Your task to perform on an android device: Search for Italian restaurants on Maps Image 0: 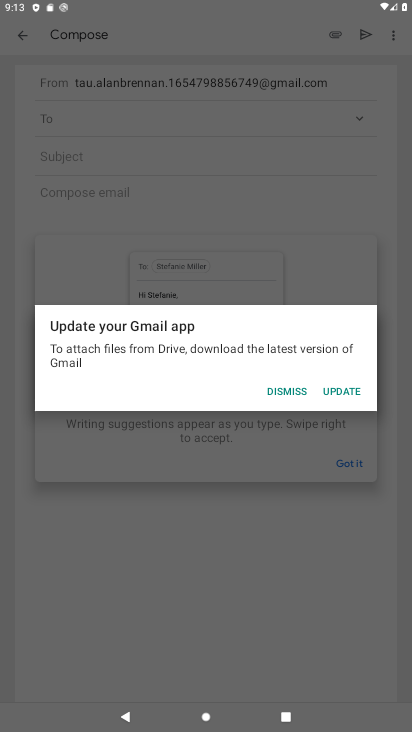
Step 0: press home button
Your task to perform on an android device: Search for Italian restaurants on Maps Image 1: 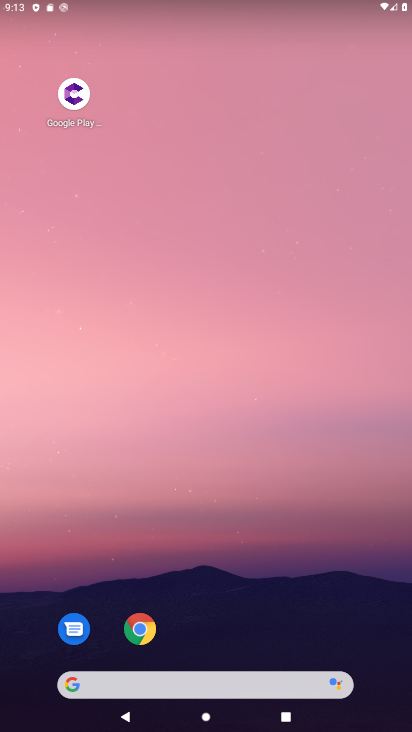
Step 1: drag from (206, 630) to (216, 81)
Your task to perform on an android device: Search for Italian restaurants on Maps Image 2: 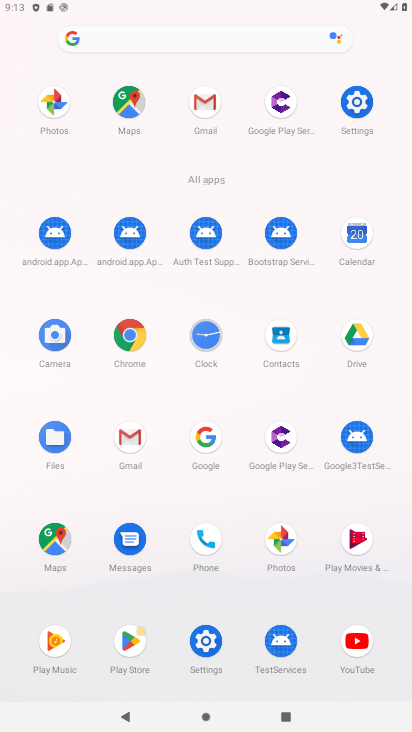
Step 2: click (129, 102)
Your task to perform on an android device: Search for Italian restaurants on Maps Image 3: 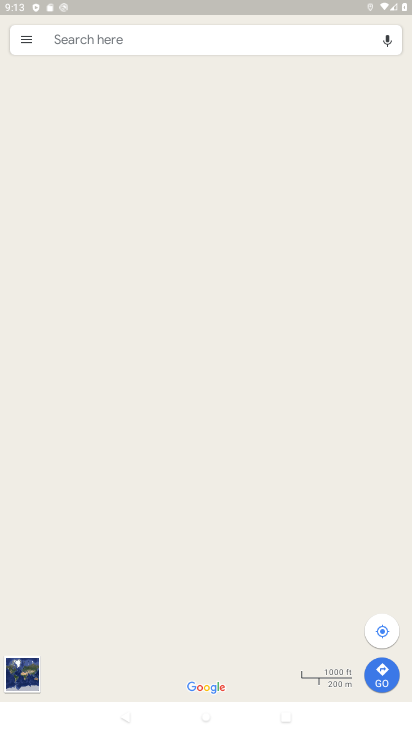
Step 3: click (160, 44)
Your task to perform on an android device: Search for Italian restaurants on Maps Image 4: 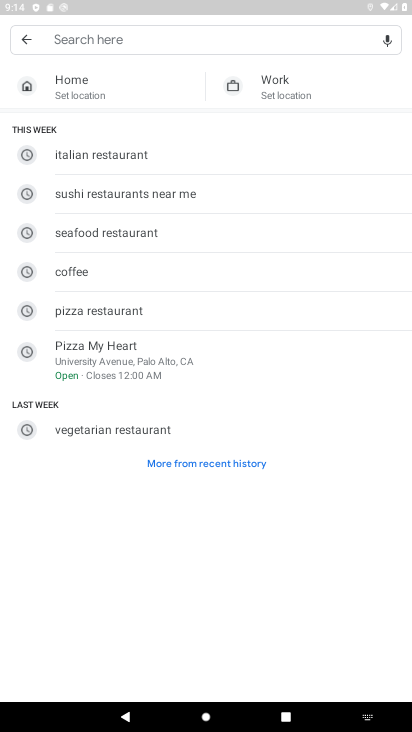
Step 4: type "Italian restaurants "
Your task to perform on an android device: Search for Italian restaurants on Maps Image 5: 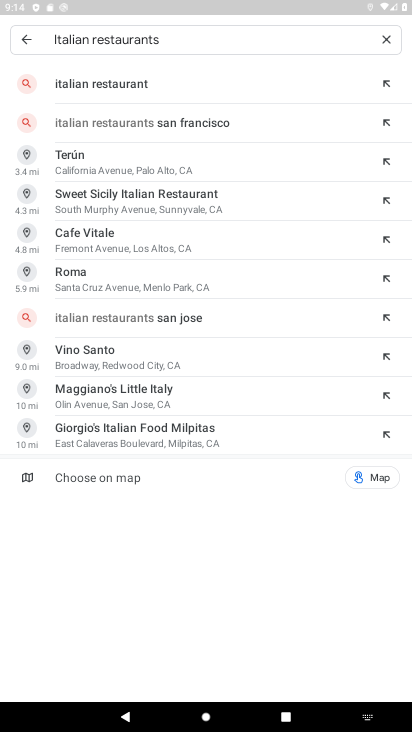
Step 5: click (98, 83)
Your task to perform on an android device: Search for Italian restaurants on Maps Image 6: 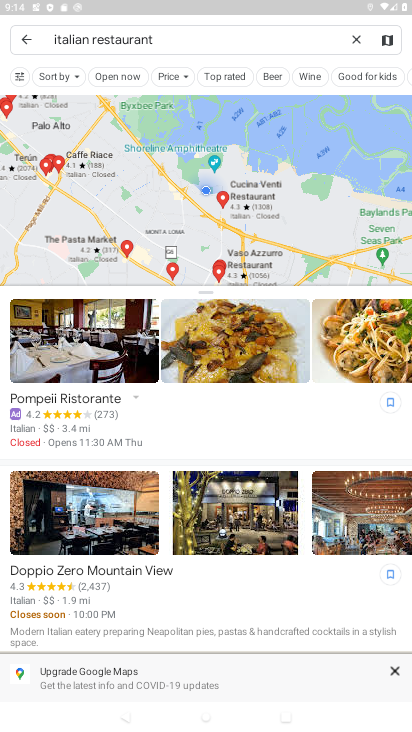
Step 6: task complete